Your task to perform on an android device: clear all cookies in the chrome app Image 0: 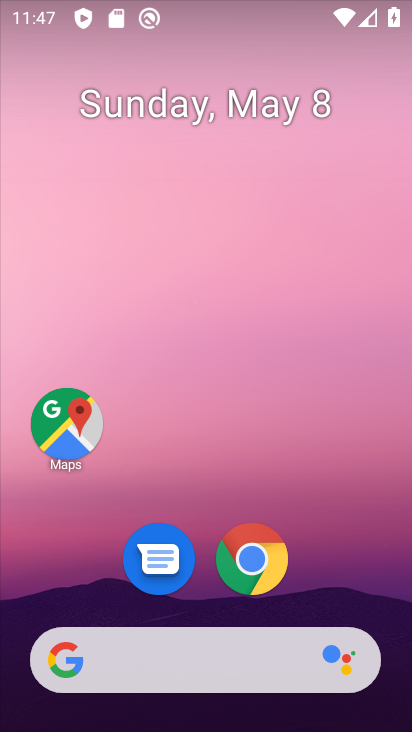
Step 0: drag from (363, 566) to (301, 174)
Your task to perform on an android device: clear all cookies in the chrome app Image 1: 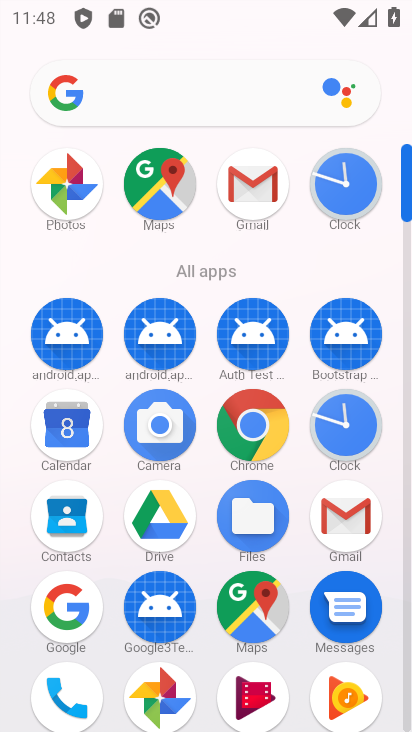
Step 1: click (407, 652)
Your task to perform on an android device: clear all cookies in the chrome app Image 2: 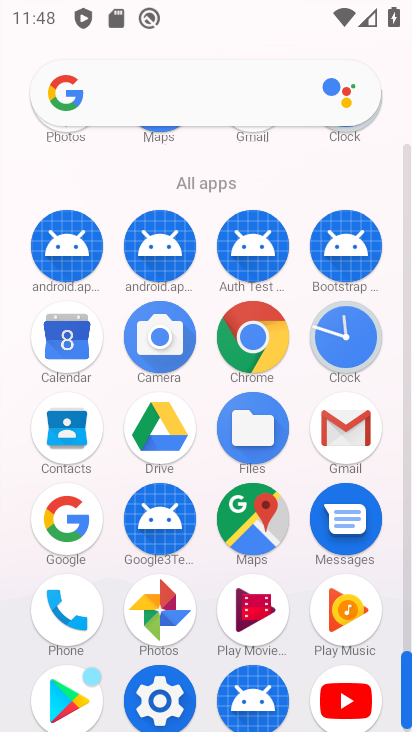
Step 2: click (407, 652)
Your task to perform on an android device: clear all cookies in the chrome app Image 3: 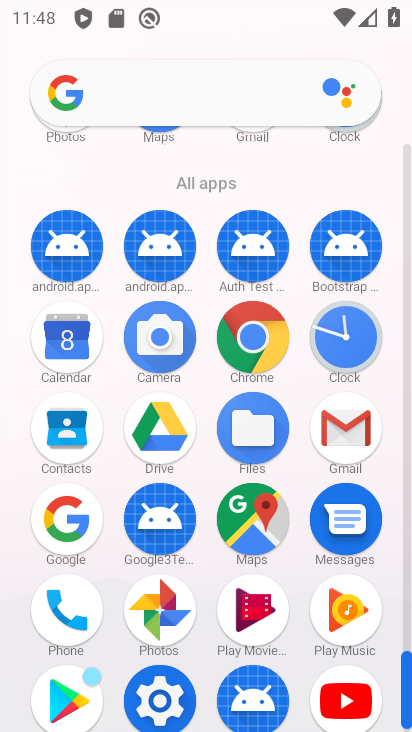
Step 3: click (260, 326)
Your task to perform on an android device: clear all cookies in the chrome app Image 4: 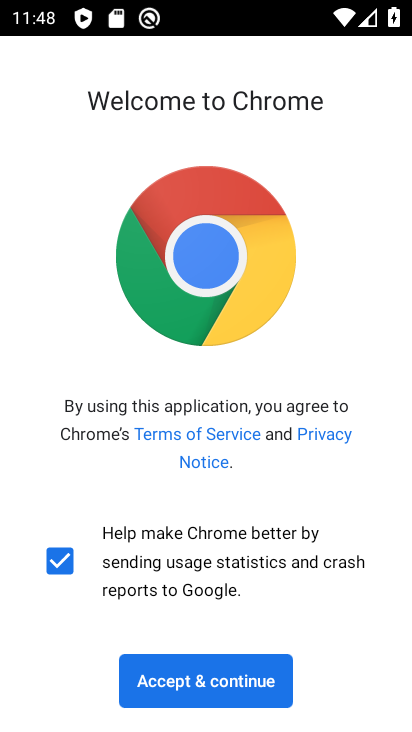
Step 4: click (243, 678)
Your task to perform on an android device: clear all cookies in the chrome app Image 5: 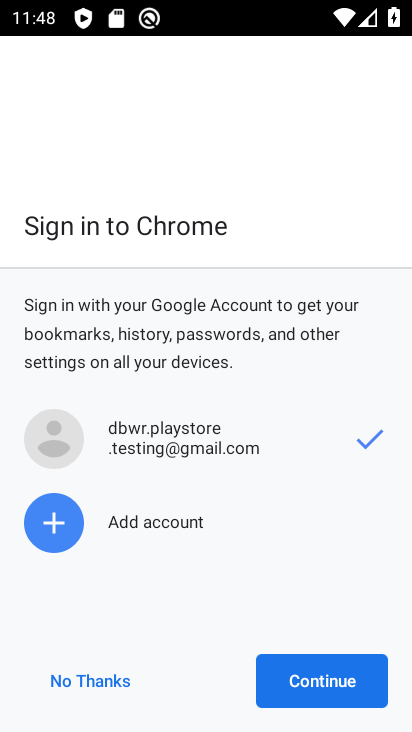
Step 5: click (280, 680)
Your task to perform on an android device: clear all cookies in the chrome app Image 6: 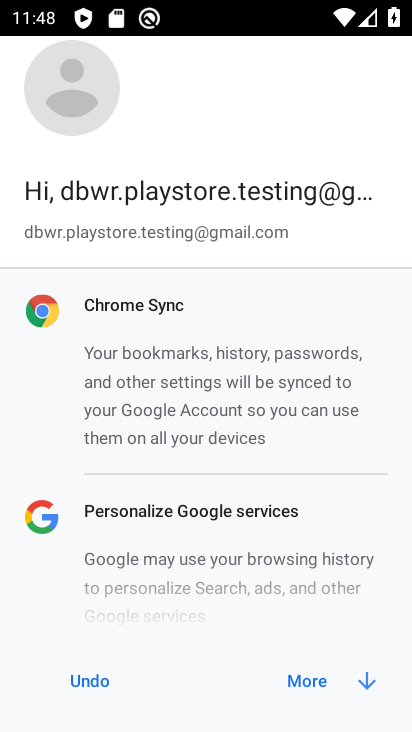
Step 6: click (280, 680)
Your task to perform on an android device: clear all cookies in the chrome app Image 7: 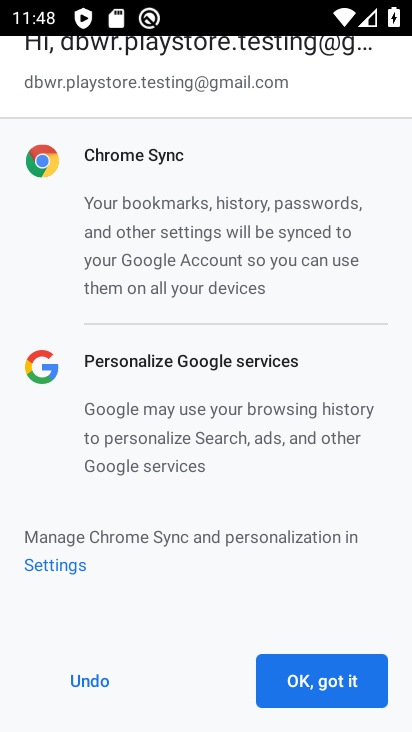
Step 7: click (280, 680)
Your task to perform on an android device: clear all cookies in the chrome app Image 8: 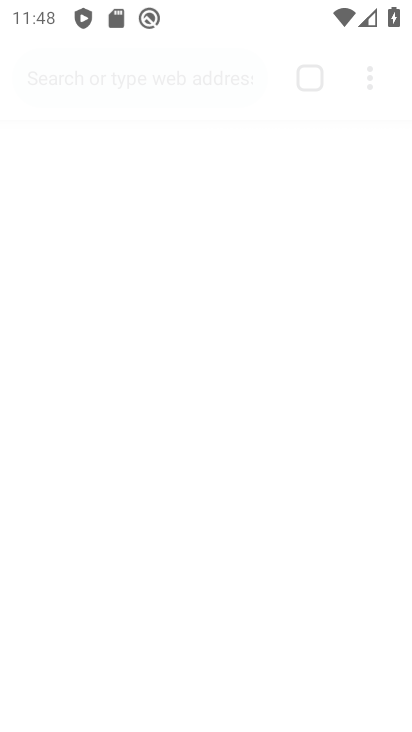
Step 8: click (280, 680)
Your task to perform on an android device: clear all cookies in the chrome app Image 9: 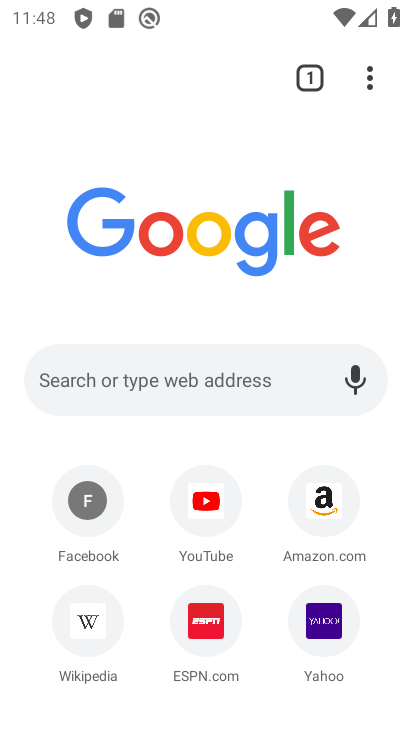
Step 9: drag from (363, 82) to (180, 624)
Your task to perform on an android device: clear all cookies in the chrome app Image 10: 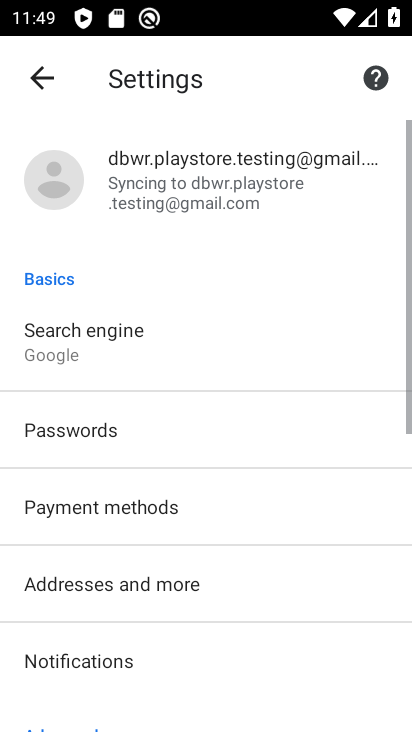
Step 10: drag from (180, 624) to (212, 210)
Your task to perform on an android device: clear all cookies in the chrome app Image 11: 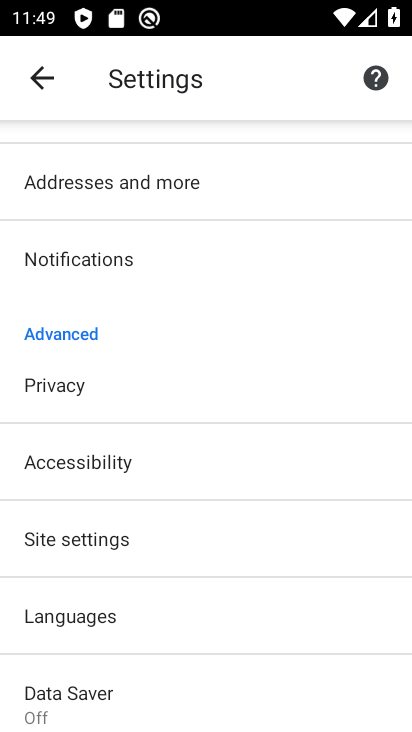
Step 11: click (29, 373)
Your task to perform on an android device: clear all cookies in the chrome app Image 12: 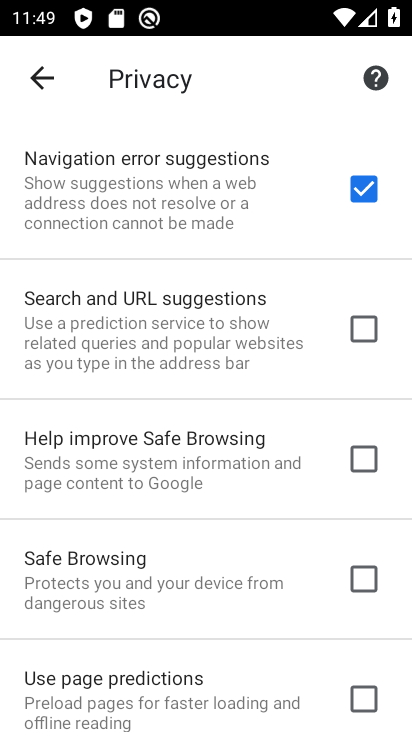
Step 12: drag from (167, 659) to (264, 136)
Your task to perform on an android device: clear all cookies in the chrome app Image 13: 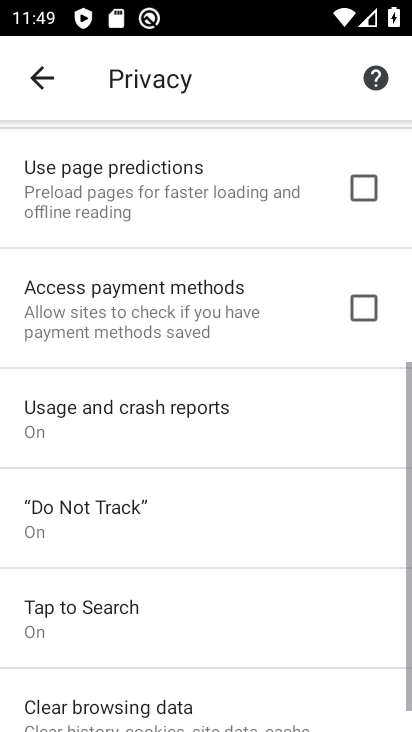
Step 13: drag from (262, 625) to (262, 336)
Your task to perform on an android device: clear all cookies in the chrome app Image 14: 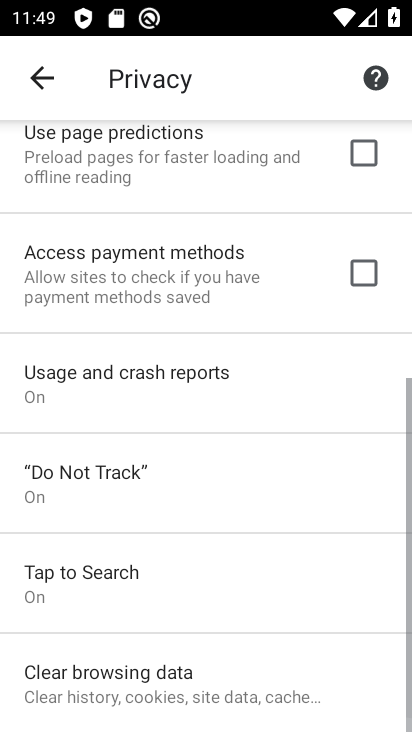
Step 14: drag from (299, 693) to (297, 558)
Your task to perform on an android device: clear all cookies in the chrome app Image 15: 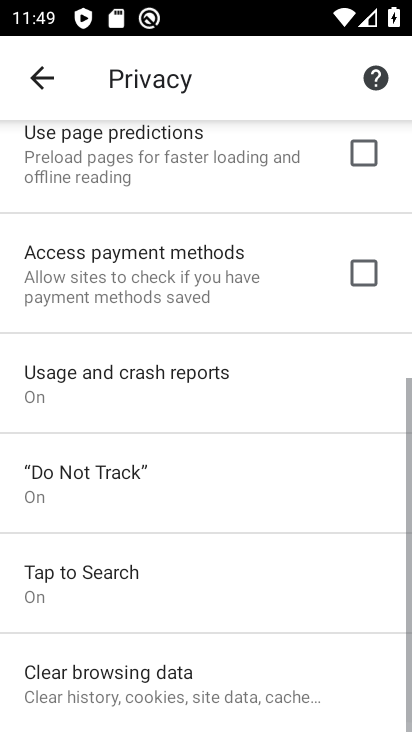
Step 15: drag from (320, 582) to (317, 468)
Your task to perform on an android device: clear all cookies in the chrome app Image 16: 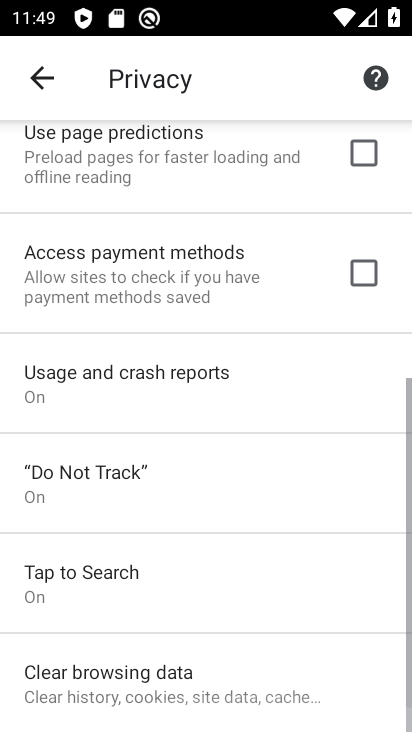
Step 16: drag from (329, 636) to (329, 336)
Your task to perform on an android device: clear all cookies in the chrome app Image 17: 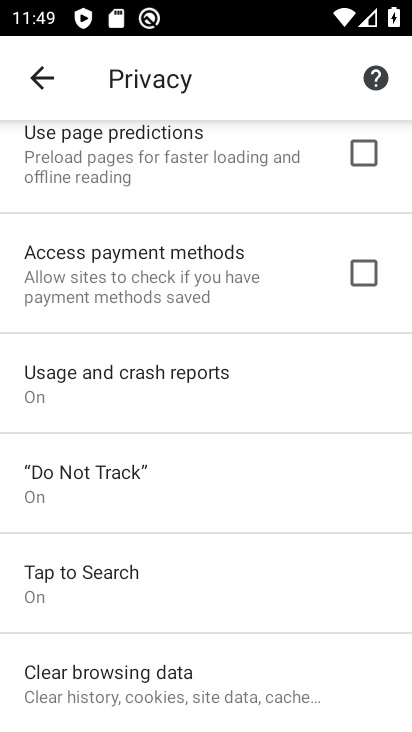
Step 17: click (259, 715)
Your task to perform on an android device: clear all cookies in the chrome app Image 18: 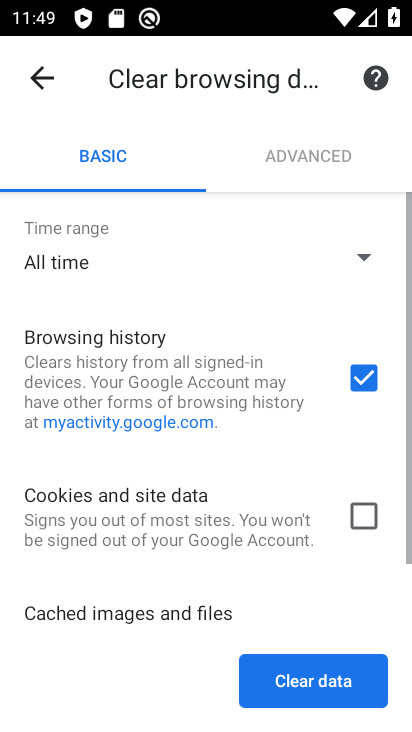
Step 18: click (343, 698)
Your task to perform on an android device: clear all cookies in the chrome app Image 19: 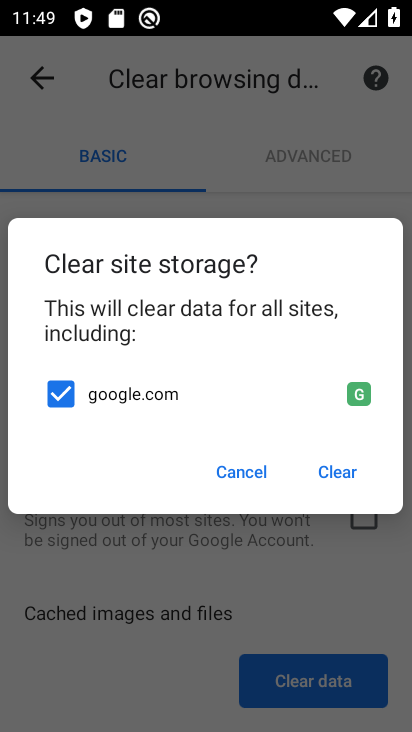
Step 19: click (247, 469)
Your task to perform on an android device: clear all cookies in the chrome app Image 20: 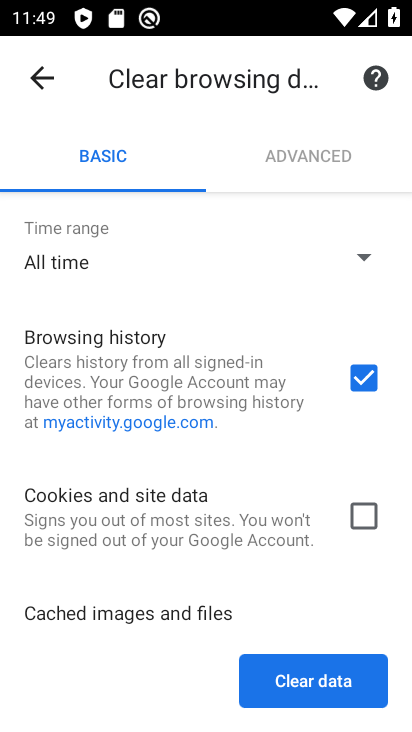
Step 20: click (367, 512)
Your task to perform on an android device: clear all cookies in the chrome app Image 21: 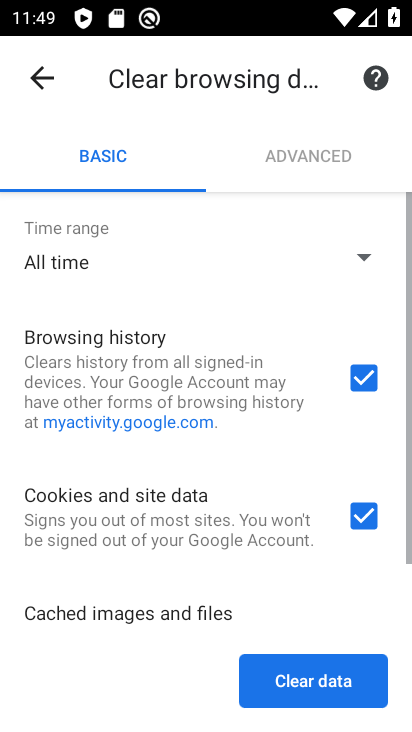
Step 21: click (351, 669)
Your task to perform on an android device: clear all cookies in the chrome app Image 22: 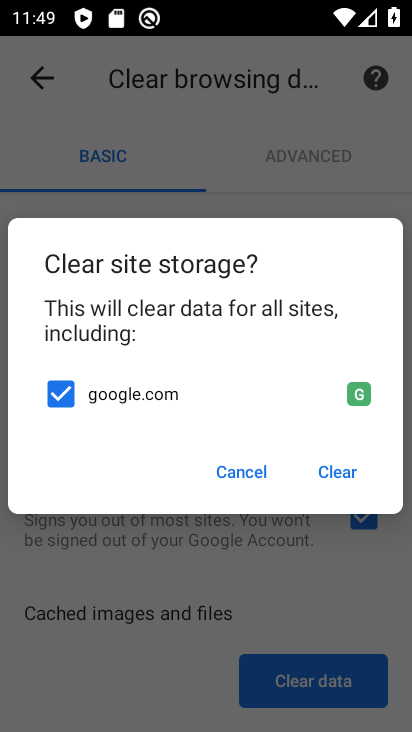
Step 22: click (315, 473)
Your task to perform on an android device: clear all cookies in the chrome app Image 23: 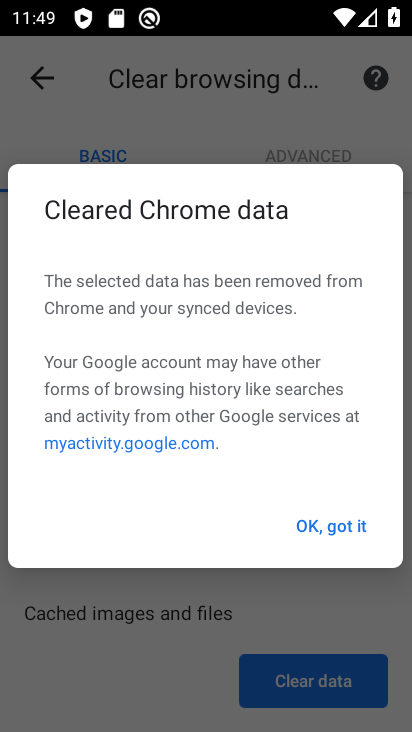
Step 23: click (350, 529)
Your task to perform on an android device: clear all cookies in the chrome app Image 24: 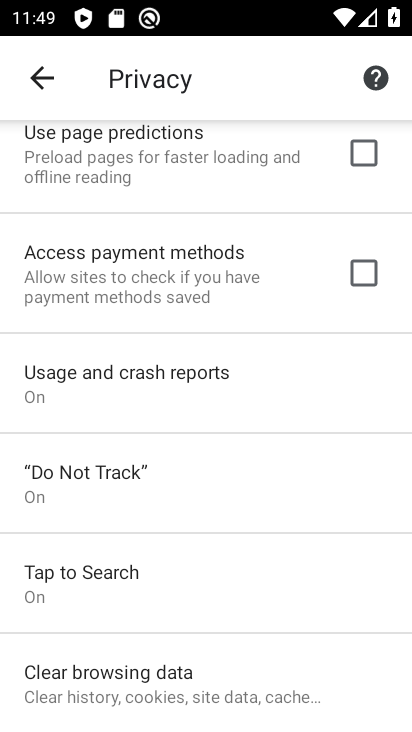
Step 24: task complete